Your task to perform on an android device: toggle notifications settings in the gmail app Image 0: 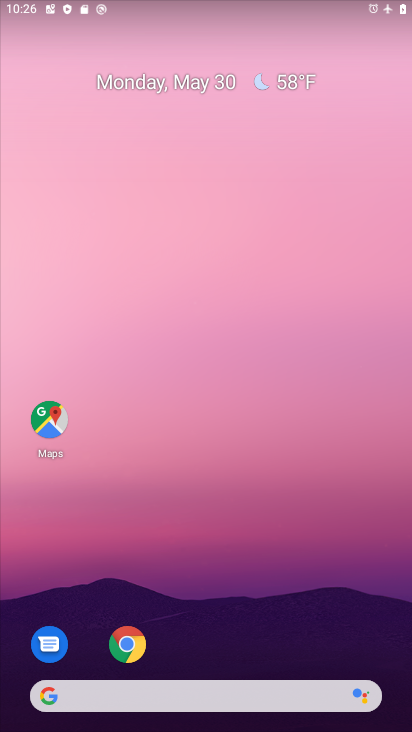
Step 0: drag from (389, 663) to (308, 55)
Your task to perform on an android device: toggle notifications settings in the gmail app Image 1: 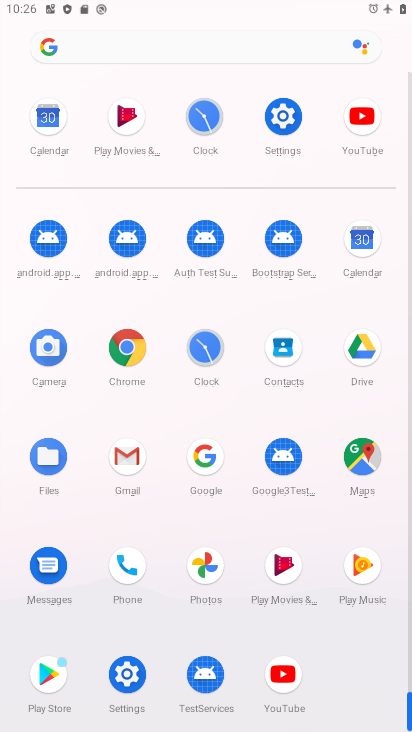
Step 1: click (127, 457)
Your task to perform on an android device: toggle notifications settings in the gmail app Image 2: 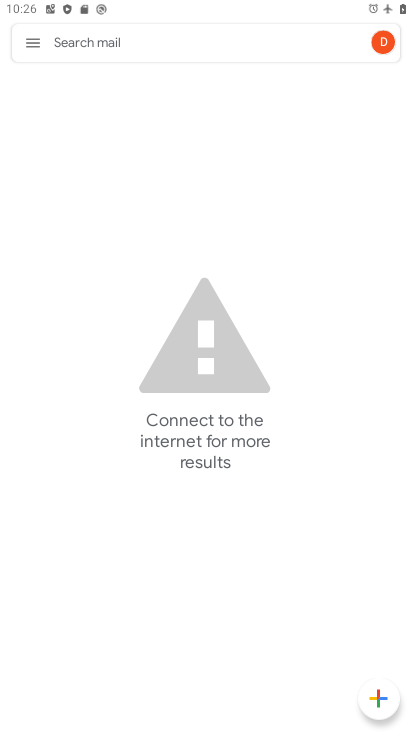
Step 2: click (42, 41)
Your task to perform on an android device: toggle notifications settings in the gmail app Image 3: 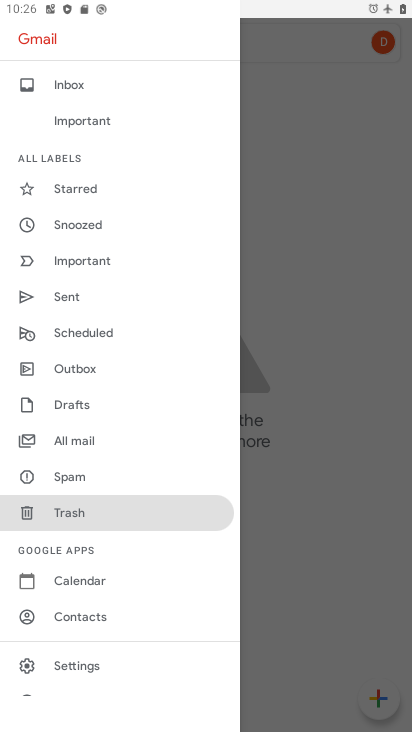
Step 3: click (94, 669)
Your task to perform on an android device: toggle notifications settings in the gmail app Image 4: 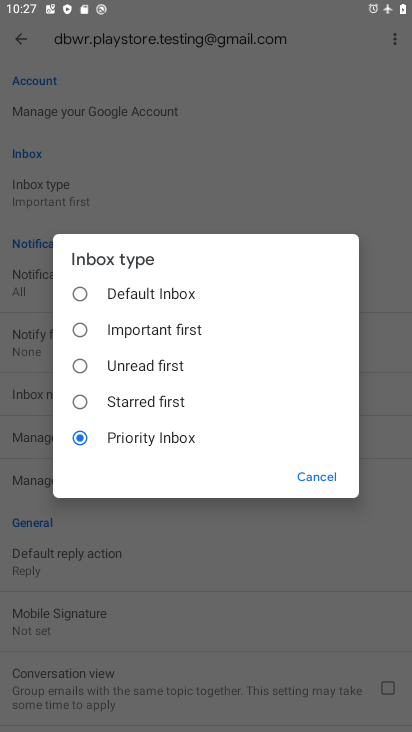
Step 4: click (304, 472)
Your task to perform on an android device: toggle notifications settings in the gmail app Image 5: 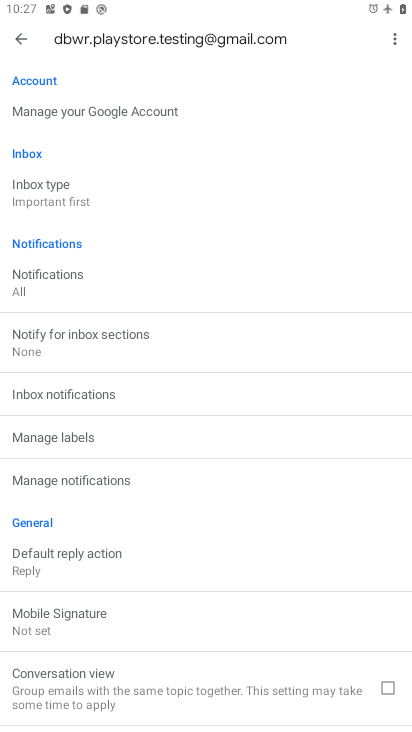
Step 5: click (71, 478)
Your task to perform on an android device: toggle notifications settings in the gmail app Image 6: 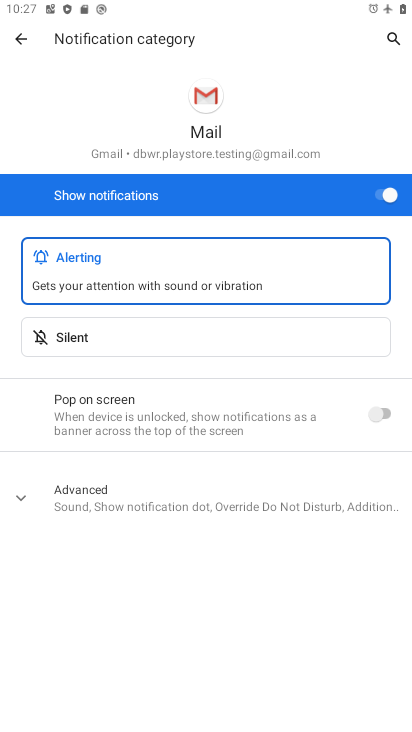
Step 6: click (377, 191)
Your task to perform on an android device: toggle notifications settings in the gmail app Image 7: 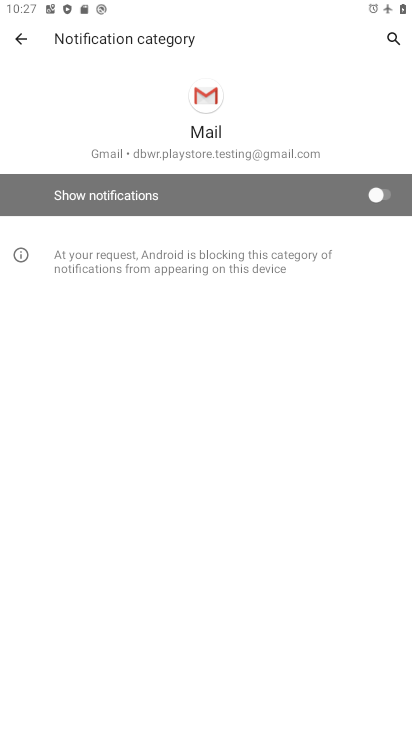
Step 7: task complete